Your task to perform on an android device: Open battery settings Image 0: 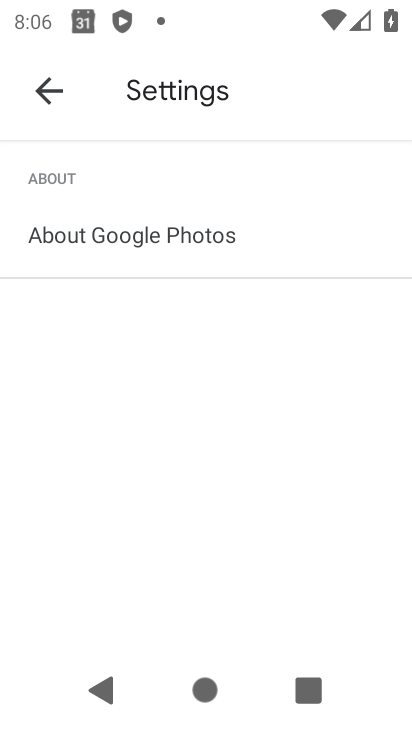
Step 0: press home button
Your task to perform on an android device: Open battery settings Image 1: 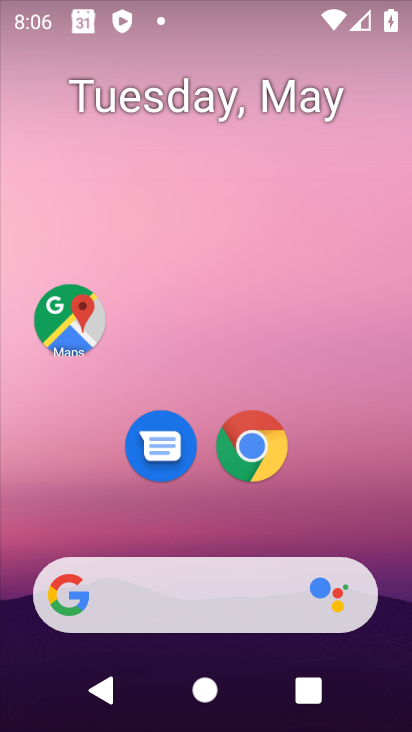
Step 1: drag from (344, 536) to (380, 6)
Your task to perform on an android device: Open battery settings Image 2: 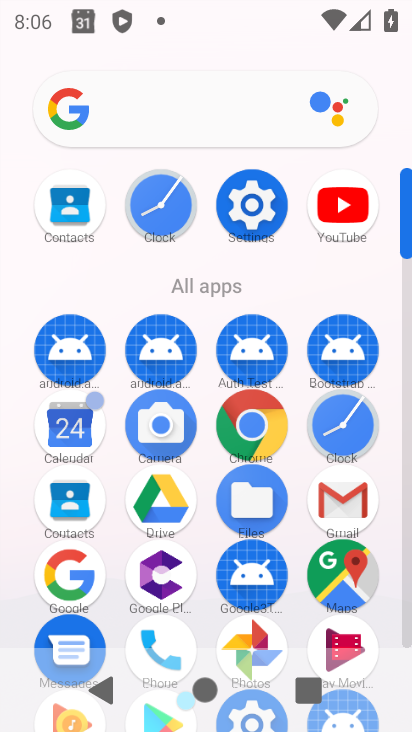
Step 2: click (243, 201)
Your task to perform on an android device: Open battery settings Image 3: 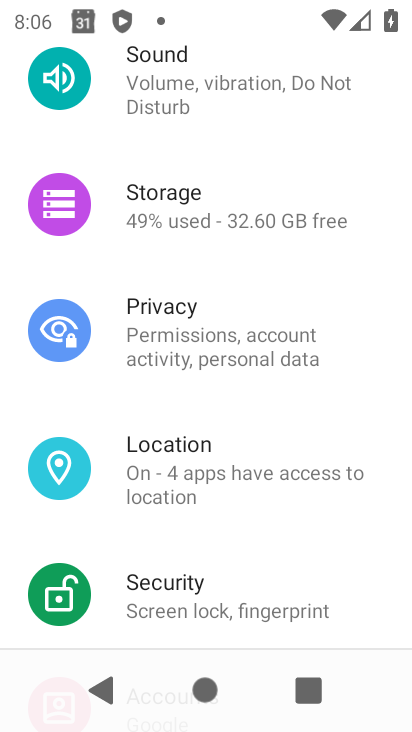
Step 3: drag from (284, 260) to (303, 511)
Your task to perform on an android device: Open battery settings Image 4: 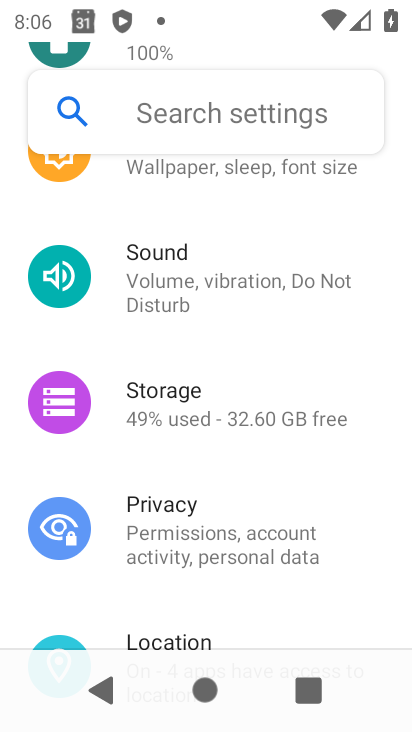
Step 4: drag from (270, 210) to (293, 572)
Your task to perform on an android device: Open battery settings Image 5: 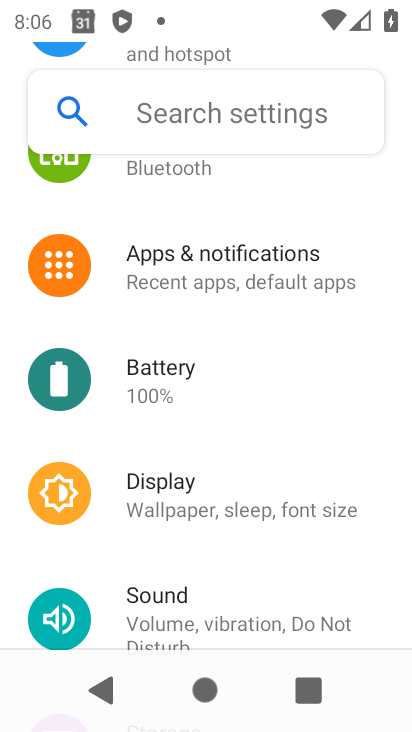
Step 5: click (154, 375)
Your task to perform on an android device: Open battery settings Image 6: 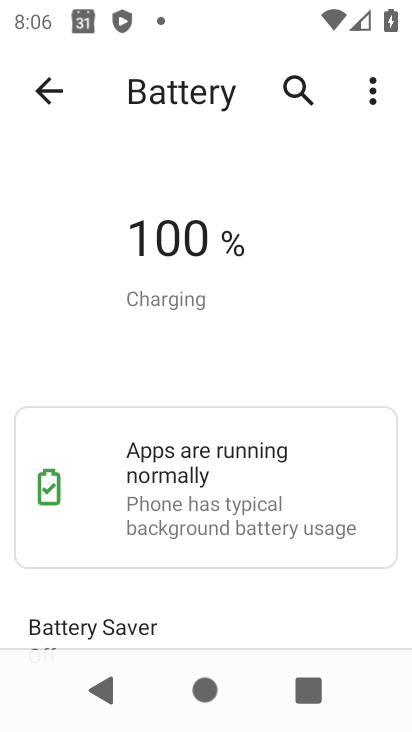
Step 6: task complete